Your task to perform on an android device: toggle data saver in the chrome app Image 0: 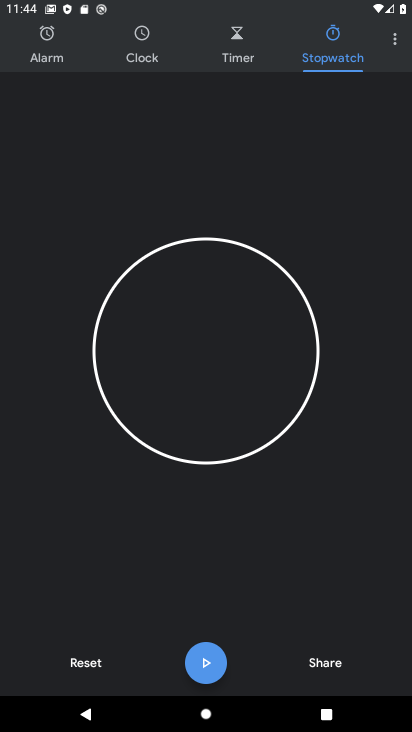
Step 0: press back button
Your task to perform on an android device: toggle data saver in the chrome app Image 1: 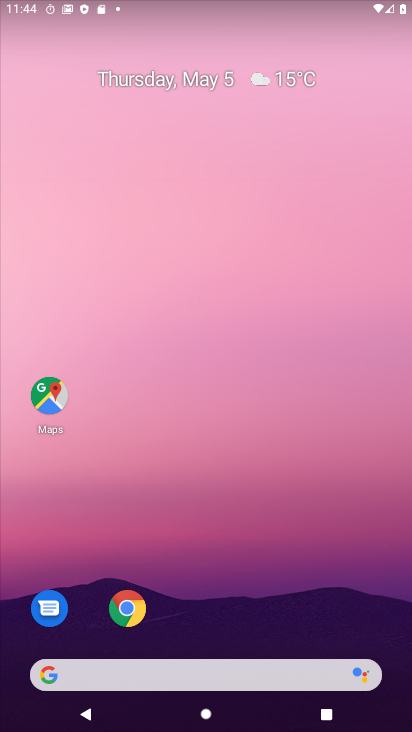
Step 1: click (125, 606)
Your task to perform on an android device: toggle data saver in the chrome app Image 2: 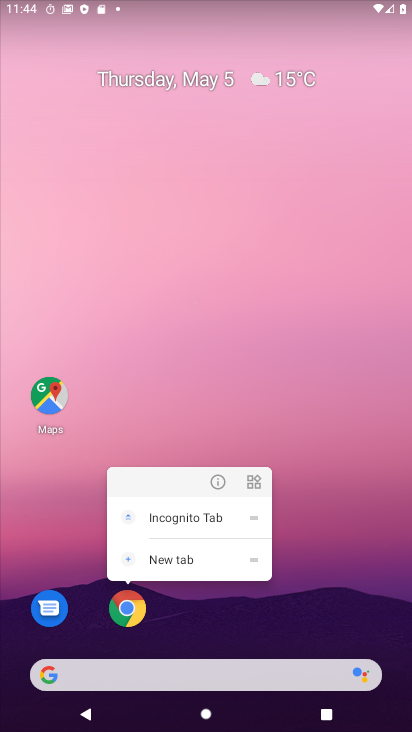
Step 2: click (125, 606)
Your task to perform on an android device: toggle data saver in the chrome app Image 3: 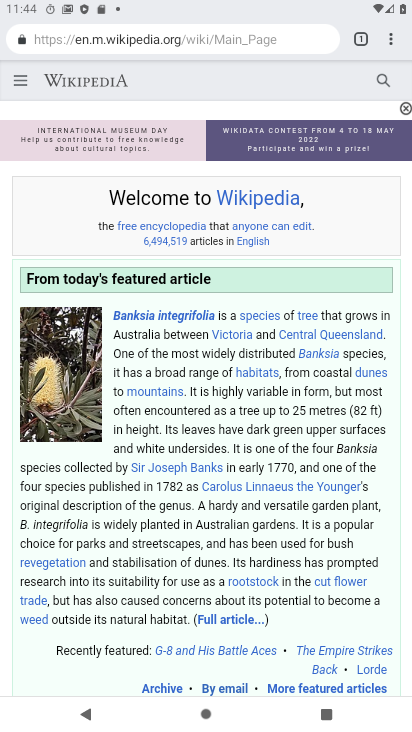
Step 3: click (398, 38)
Your task to perform on an android device: toggle data saver in the chrome app Image 4: 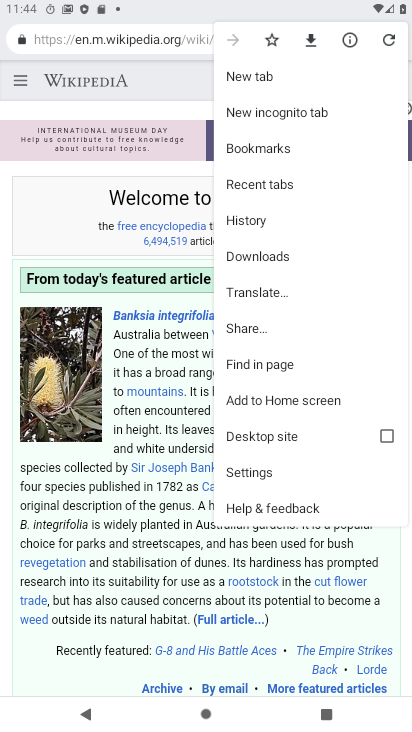
Step 4: click (255, 470)
Your task to perform on an android device: toggle data saver in the chrome app Image 5: 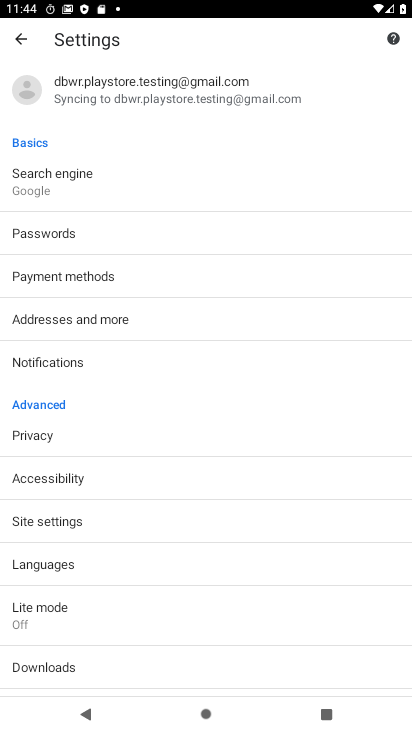
Step 5: click (46, 607)
Your task to perform on an android device: toggle data saver in the chrome app Image 6: 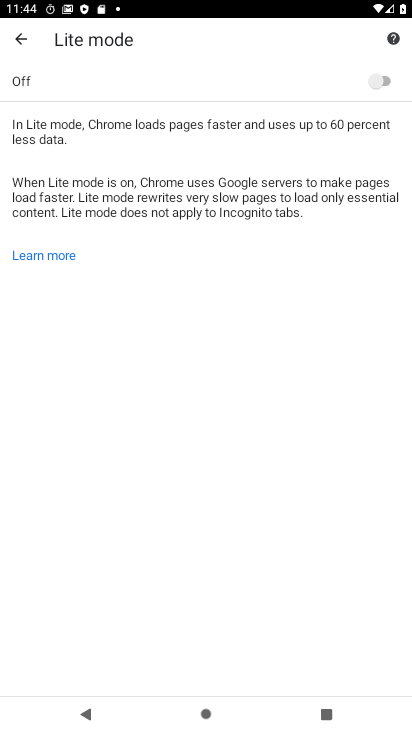
Step 6: click (375, 79)
Your task to perform on an android device: toggle data saver in the chrome app Image 7: 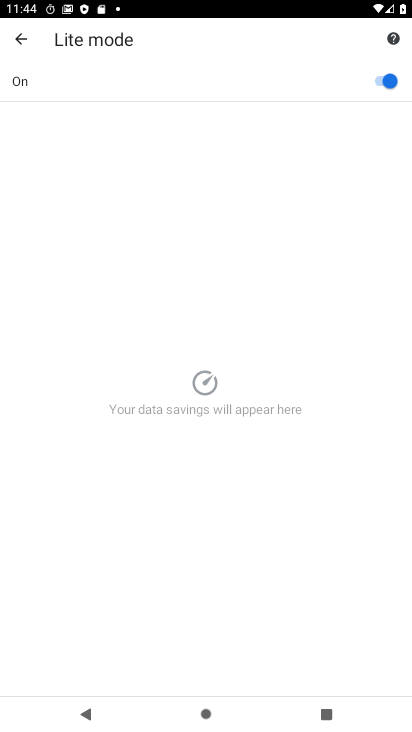
Step 7: task complete